Your task to perform on an android device: Open location settings Image 0: 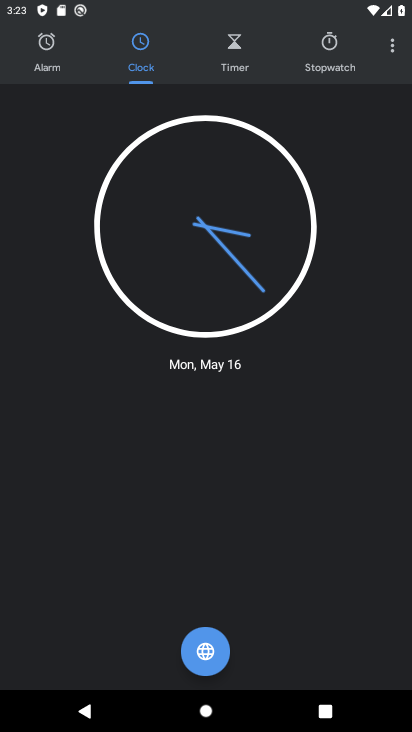
Step 0: press home button
Your task to perform on an android device: Open location settings Image 1: 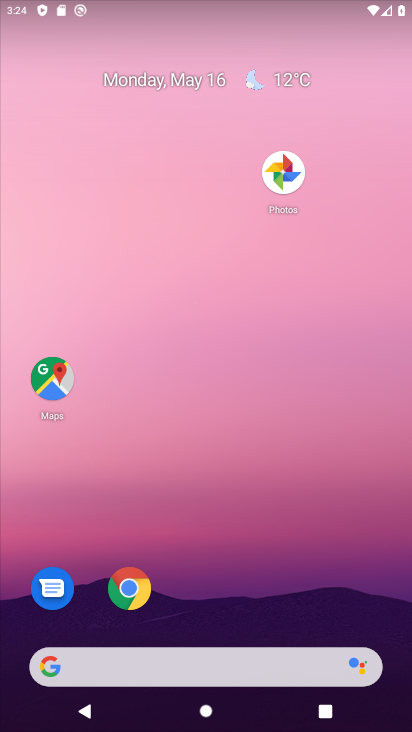
Step 1: drag from (253, 488) to (296, 13)
Your task to perform on an android device: Open location settings Image 2: 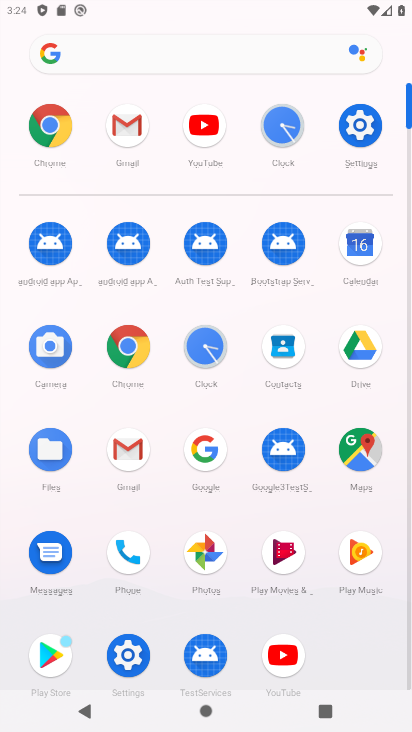
Step 2: click (358, 124)
Your task to perform on an android device: Open location settings Image 3: 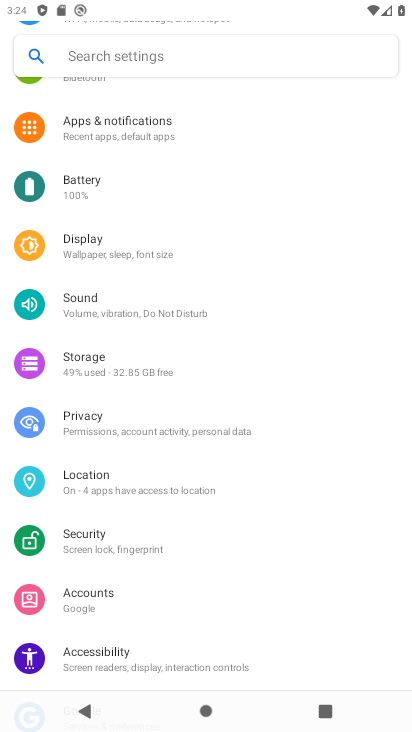
Step 3: click (106, 488)
Your task to perform on an android device: Open location settings Image 4: 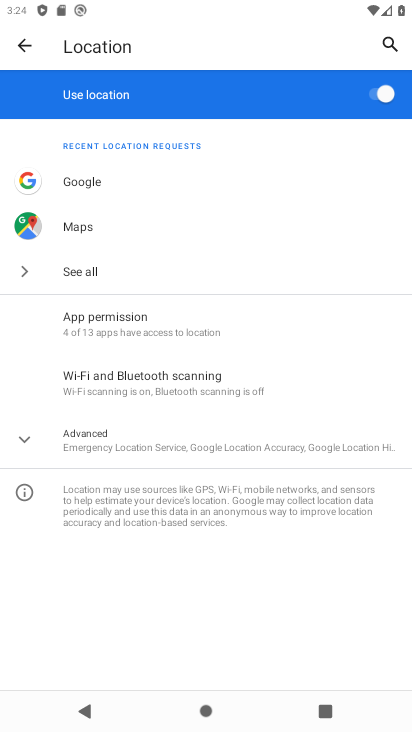
Step 4: task complete